Your task to perform on an android device: Show the shopping cart on newegg. Search for "logitech g933" on newegg, select the first entry, add it to the cart, then select checkout. Image 0: 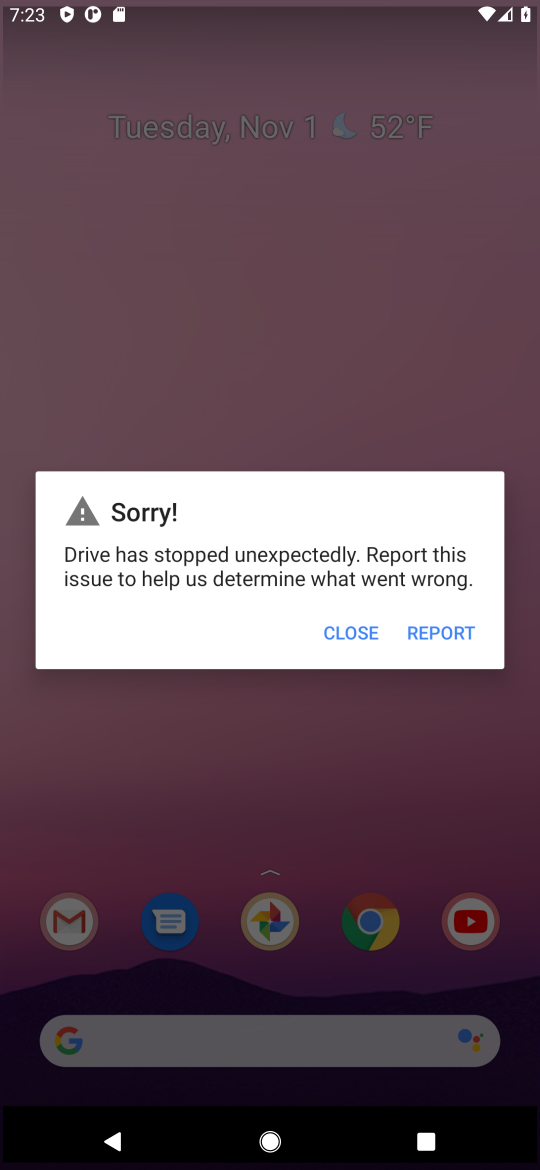
Step 0: click (386, 938)
Your task to perform on an android device: Show the shopping cart on newegg. Search for "logitech g933" on newegg, select the first entry, add it to the cart, then select checkout. Image 1: 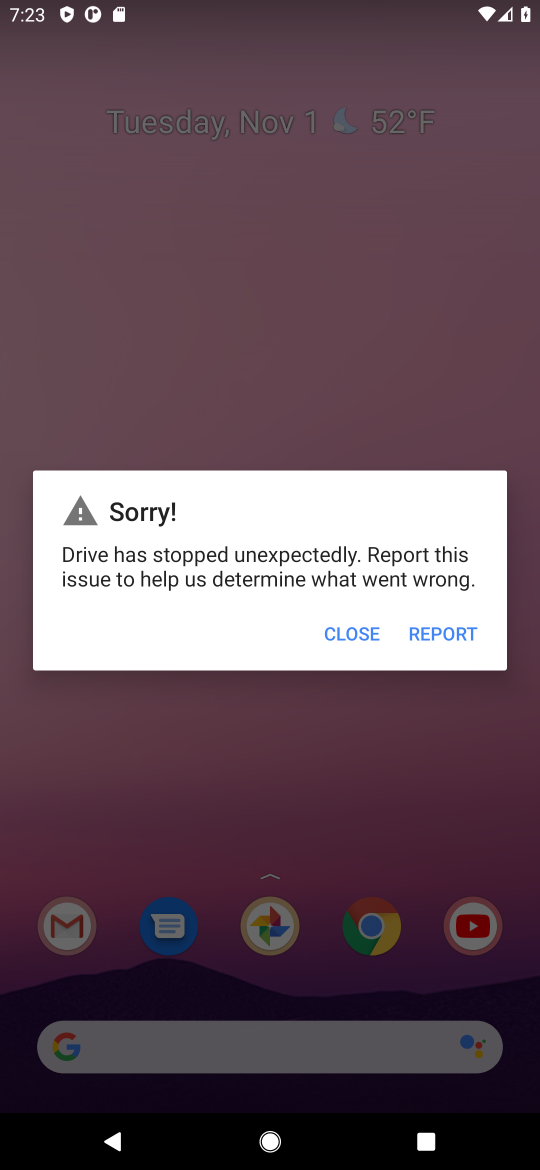
Step 1: click (354, 635)
Your task to perform on an android device: Show the shopping cart on newegg. Search for "logitech g933" on newegg, select the first entry, add it to the cart, then select checkout. Image 2: 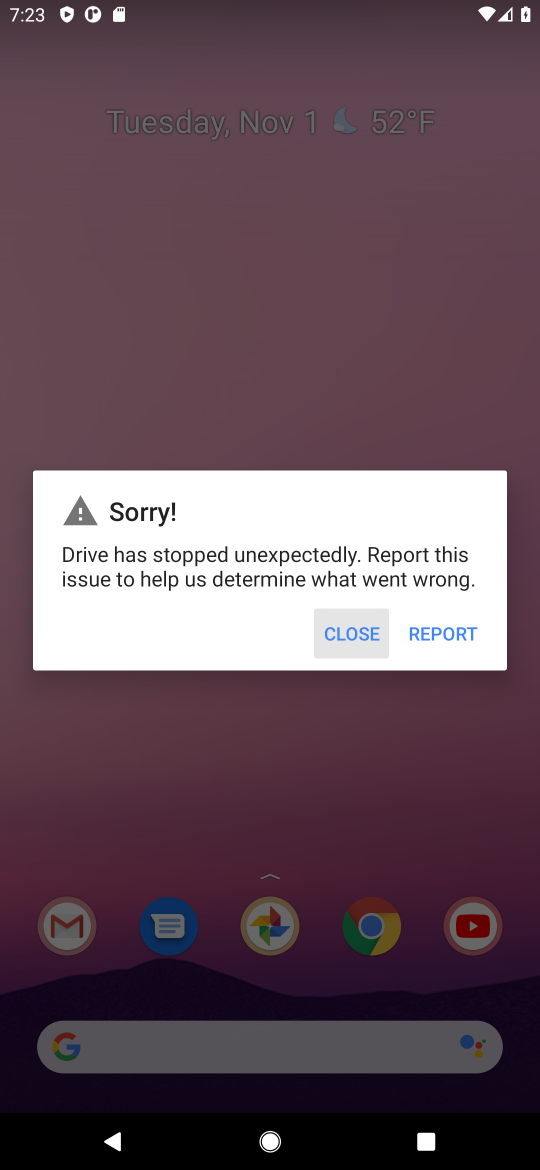
Step 2: click (356, 936)
Your task to perform on an android device: Show the shopping cart on newegg. Search for "logitech g933" on newegg, select the first entry, add it to the cart, then select checkout. Image 3: 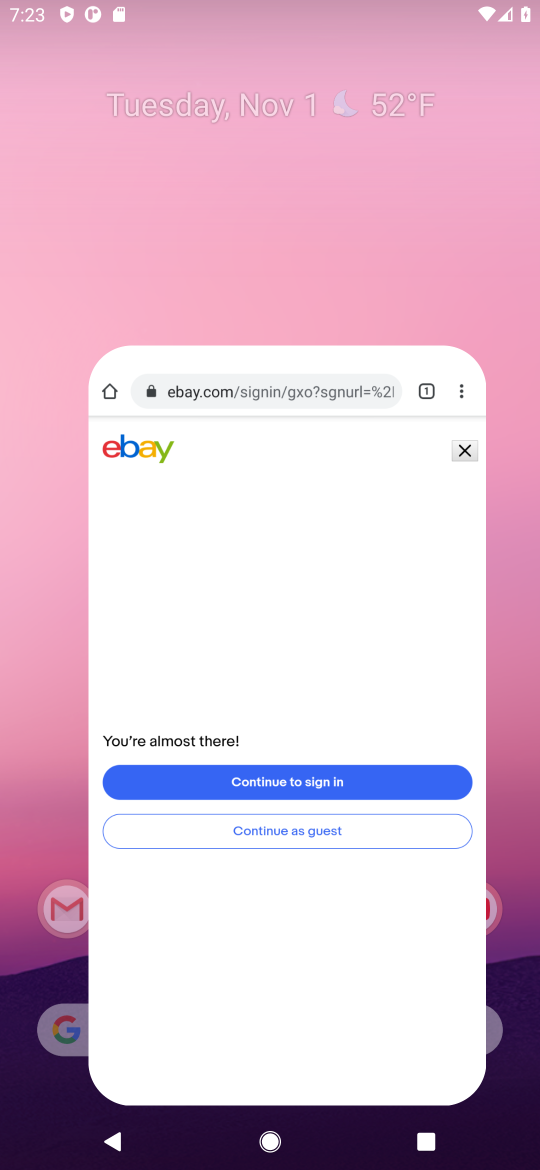
Step 3: click (361, 930)
Your task to perform on an android device: Show the shopping cart on newegg. Search for "logitech g933" on newegg, select the first entry, add it to the cart, then select checkout. Image 4: 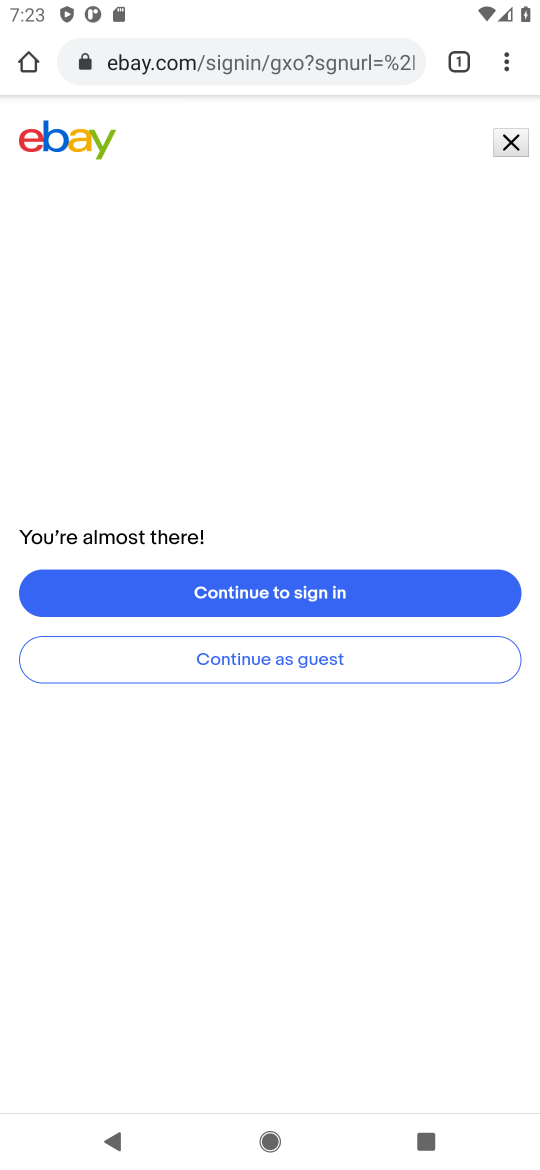
Step 4: click (188, 57)
Your task to perform on an android device: Show the shopping cart on newegg. Search for "logitech g933" on newegg, select the first entry, add it to the cart, then select checkout. Image 5: 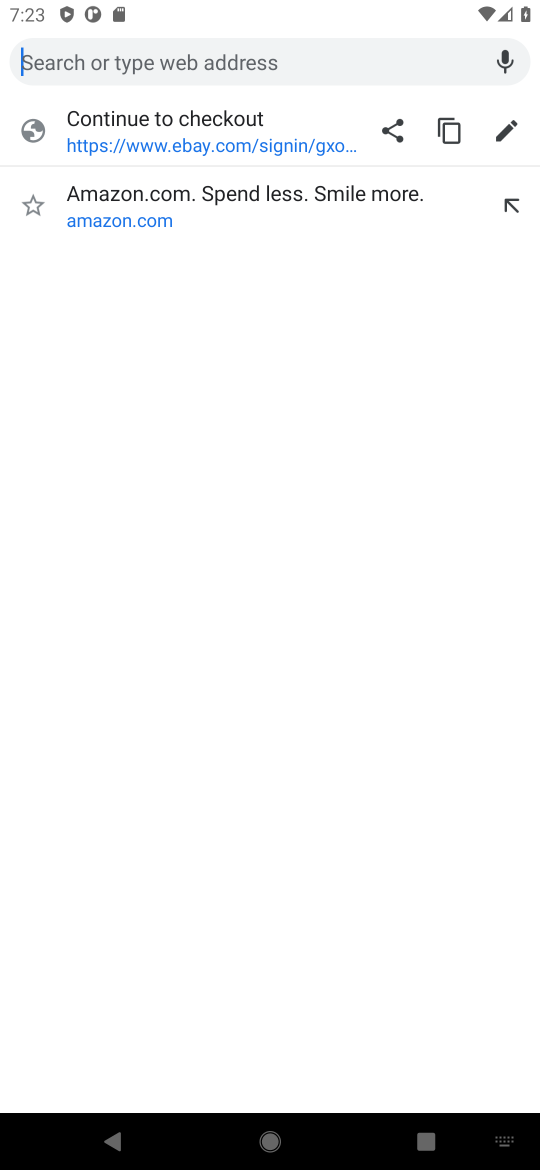
Step 5: type "newegg"
Your task to perform on an android device: Show the shopping cart on newegg. Search for "logitech g933" on newegg, select the first entry, add it to the cart, then select checkout. Image 6: 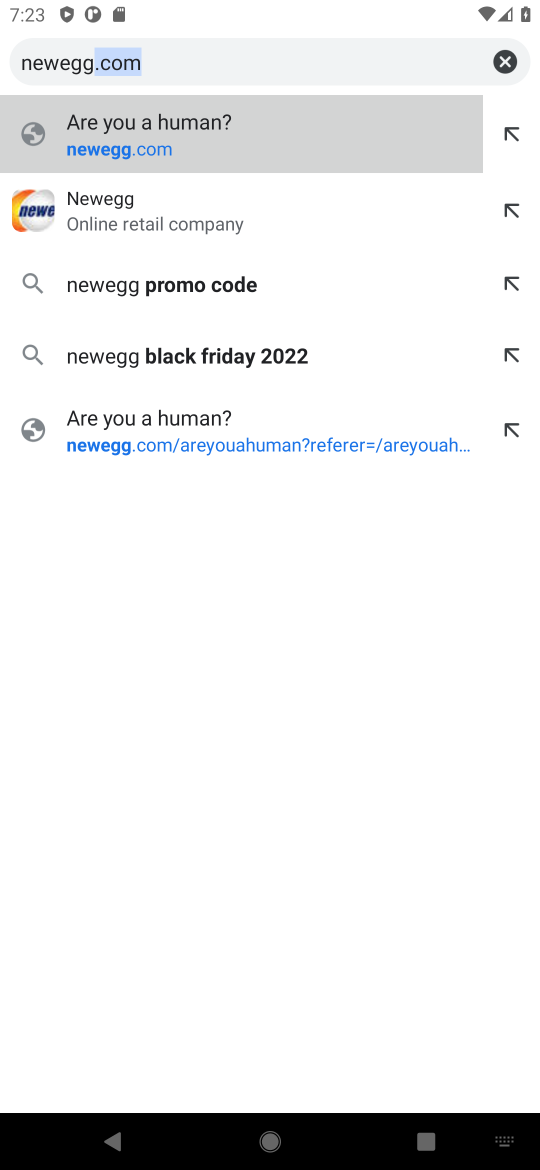
Step 6: type ""
Your task to perform on an android device: Show the shopping cart on newegg. Search for "logitech g933" on newegg, select the first entry, add it to the cart, then select checkout. Image 7: 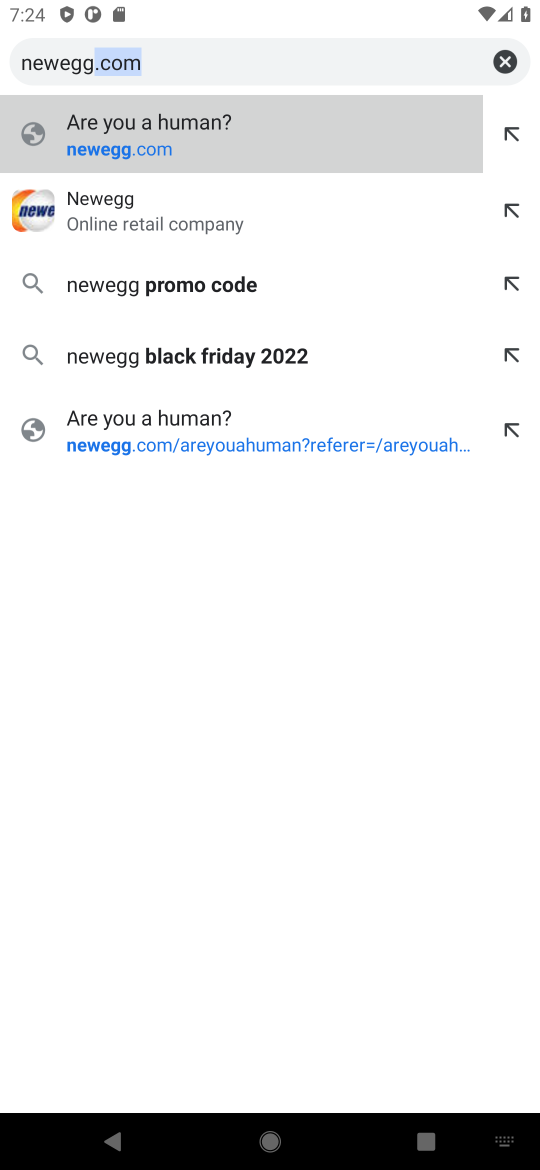
Step 7: click (103, 197)
Your task to perform on an android device: Show the shopping cart on newegg. Search for "logitech g933" on newegg, select the first entry, add it to the cart, then select checkout. Image 8: 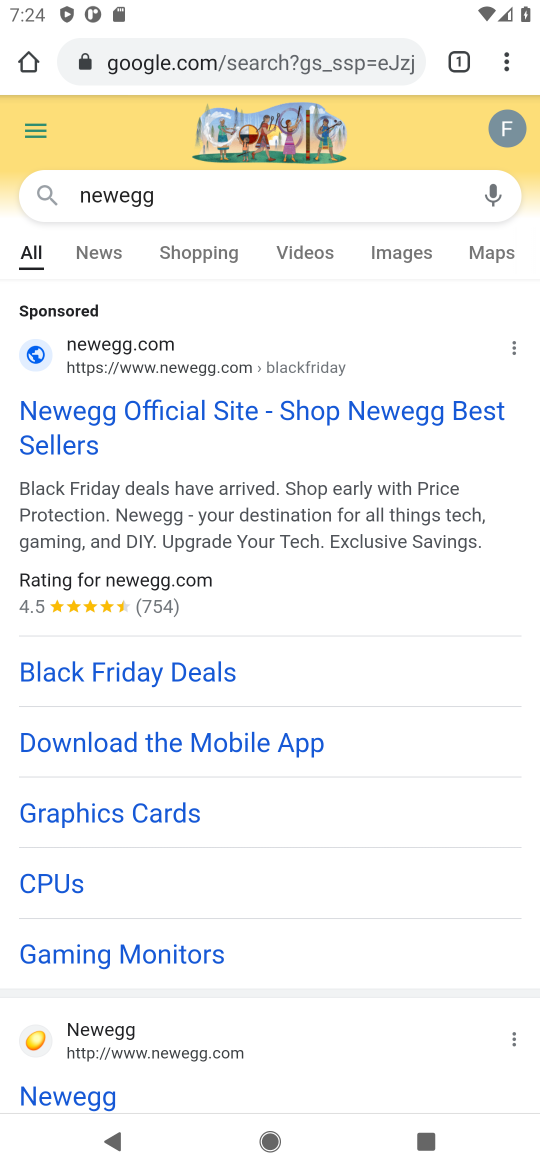
Step 8: click (93, 1033)
Your task to perform on an android device: Show the shopping cart on newegg. Search for "logitech g933" on newegg, select the first entry, add it to the cart, then select checkout. Image 9: 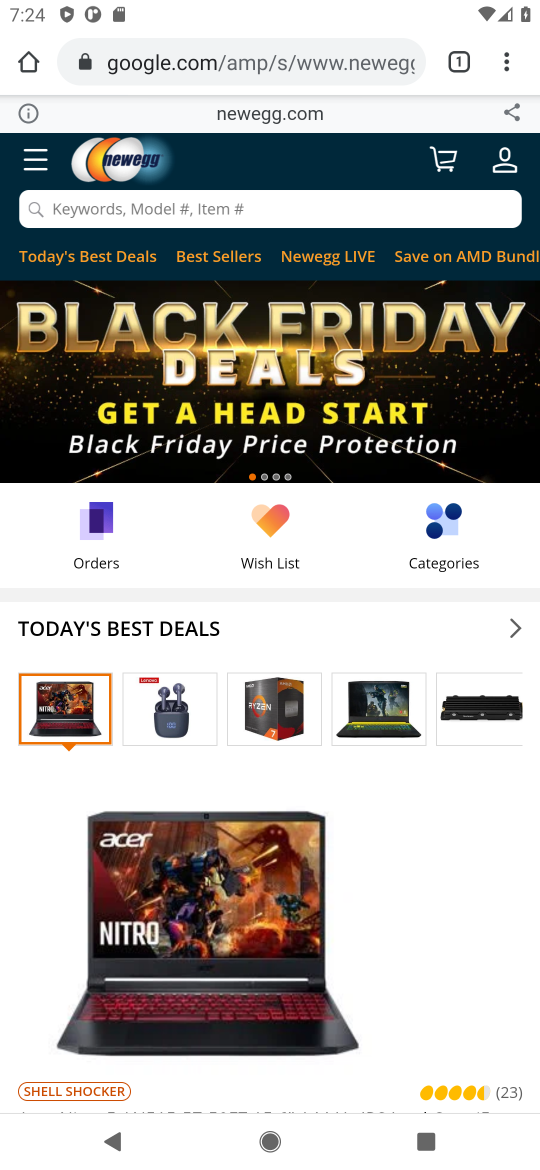
Step 9: click (240, 202)
Your task to perform on an android device: Show the shopping cart on newegg. Search for "logitech g933" on newegg, select the first entry, add it to the cart, then select checkout. Image 10: 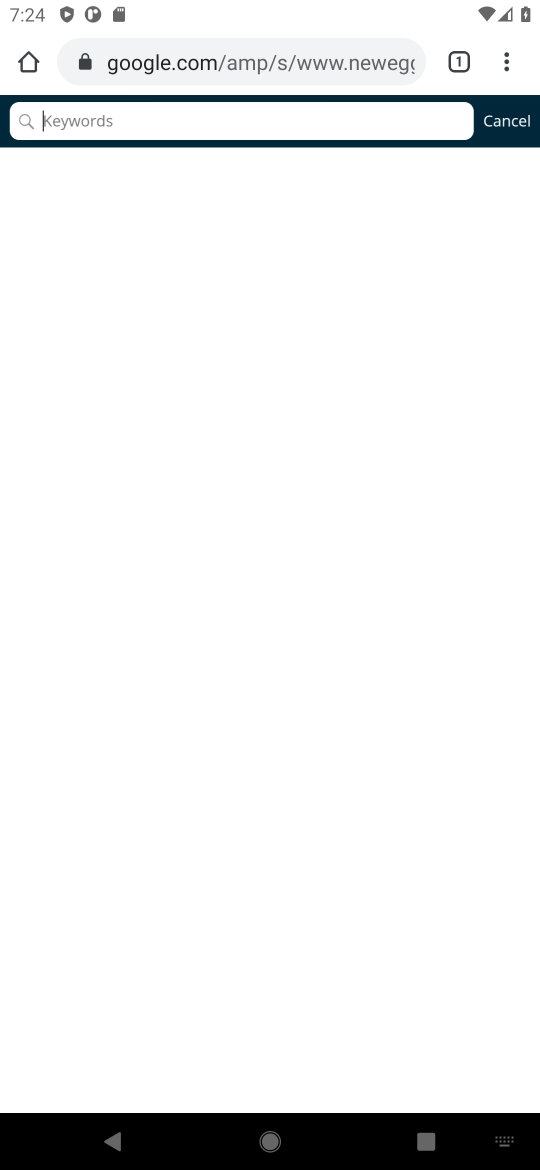
Step 10: type "logitech g 33"
Your task to perform on an android device: Show the shopping cart on newegg. Search for "logitech g933" on newegg, select the first entry, add it to the cart, then select checkout. Image 11: 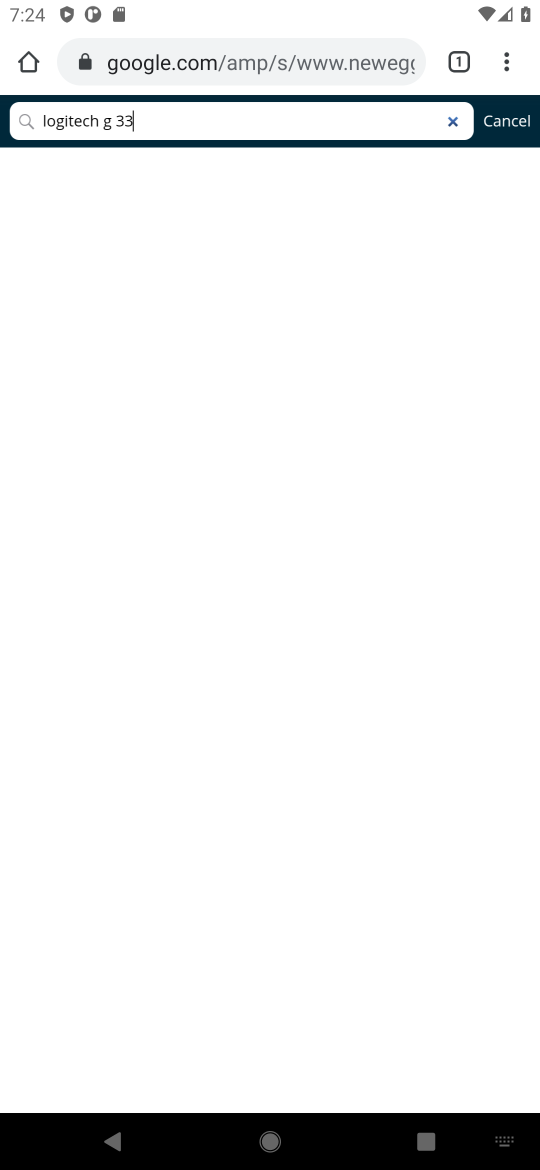
Step 11: type ""
Your task to perform on an android device: Show the shopping cart on newegg. Search for "logitech g933" on newegg, select the first entry, add it to the cart, then select checkout. Image 12: 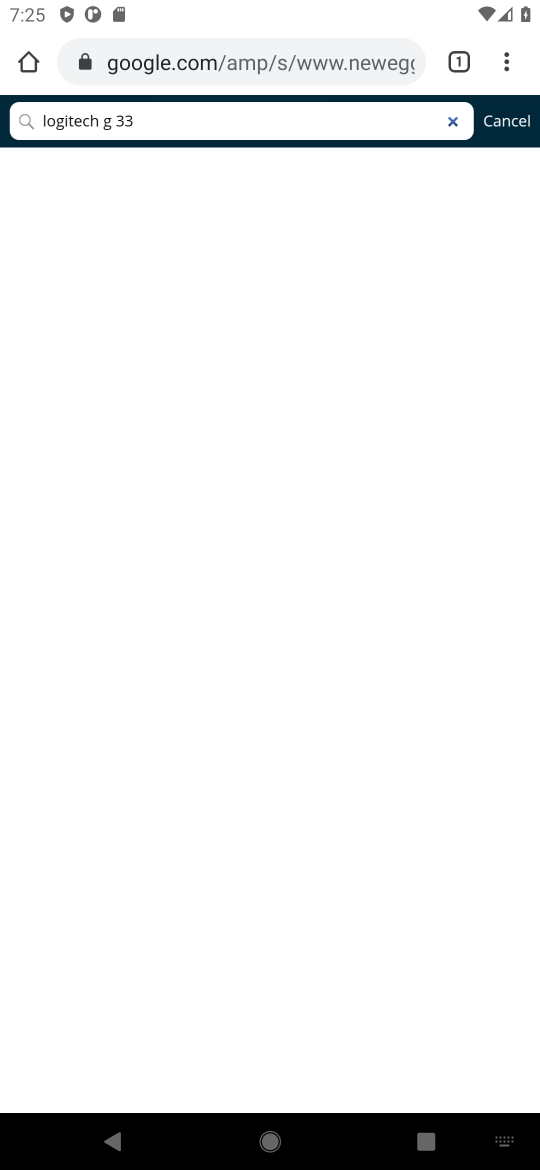
Step 12: click (454, 124)
Your task to perform on an android device: Show the shopping cart on newegg. Search for "logitech g933" on newegg, select the first entry, add it to the cart, then select checkout. Image 13: 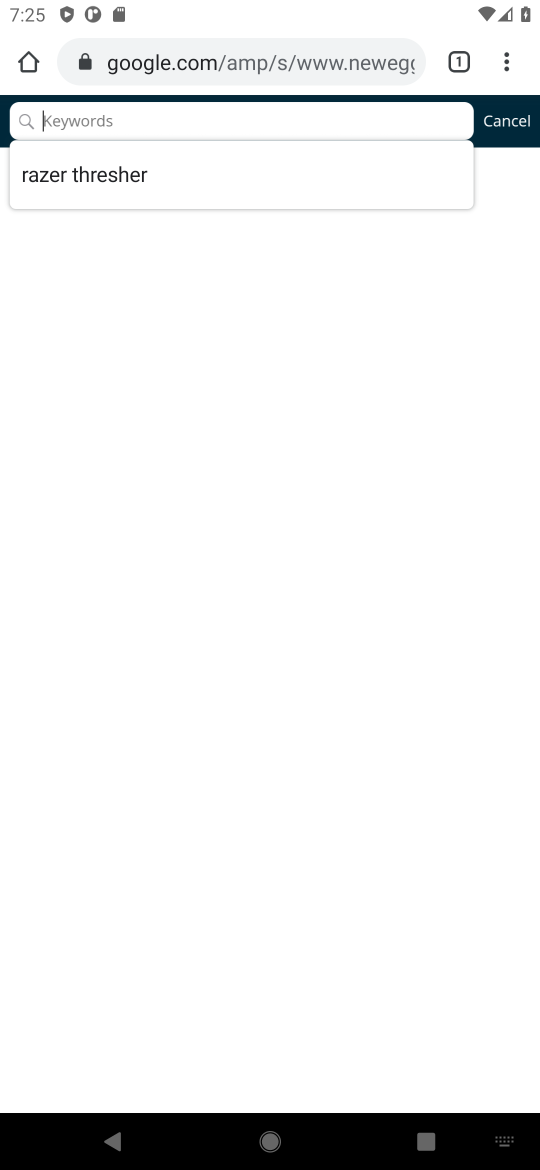
Step 13: press back button
Your task to perform on an android device: Show the shopping cart on newegg. Search for "logitech g933" on newegg, select the first entry, add it to the cart, then select checkout. Image 14: 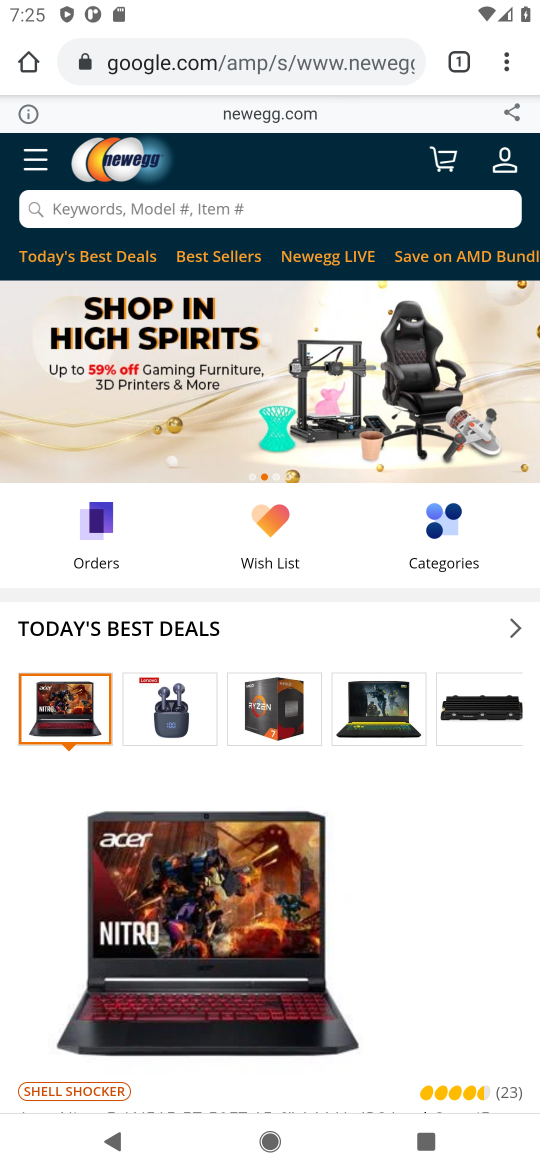
Step 14: click (104, 522)
Your task to perform on an android device: Show the shopping cart on newegg. Search for "logitech g933" on newegg, select the first entry, add it to the cart, then select checkout. Image 15: 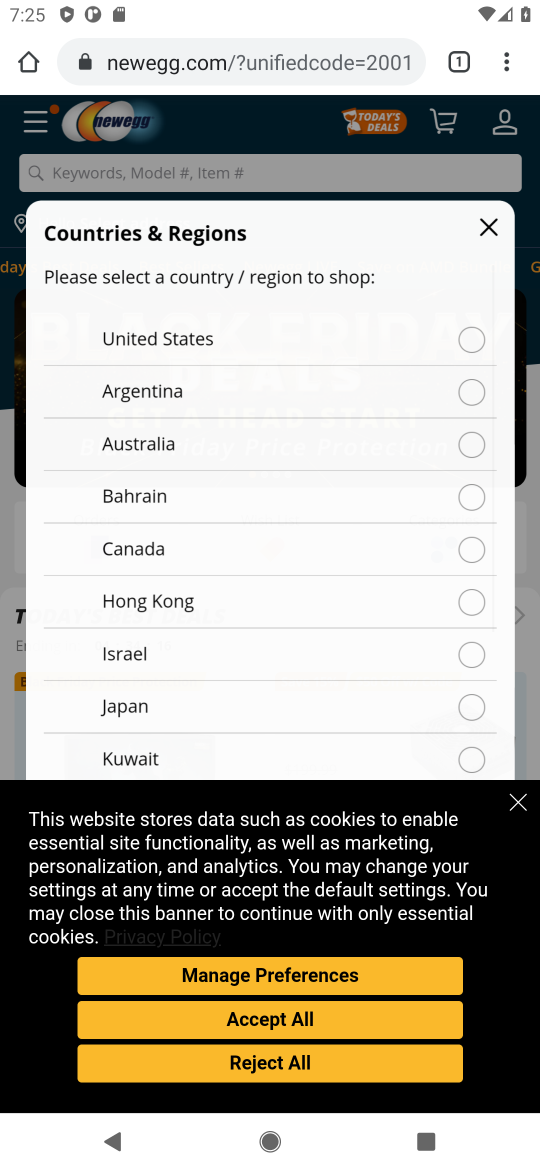
Step 15: click (121, 163)
Your task to perform on an android device: Show the shopping cart on newegg. Search for "logitech g933" on newegg, select the first entry, add it to the cart, then select checkout. Image 16: 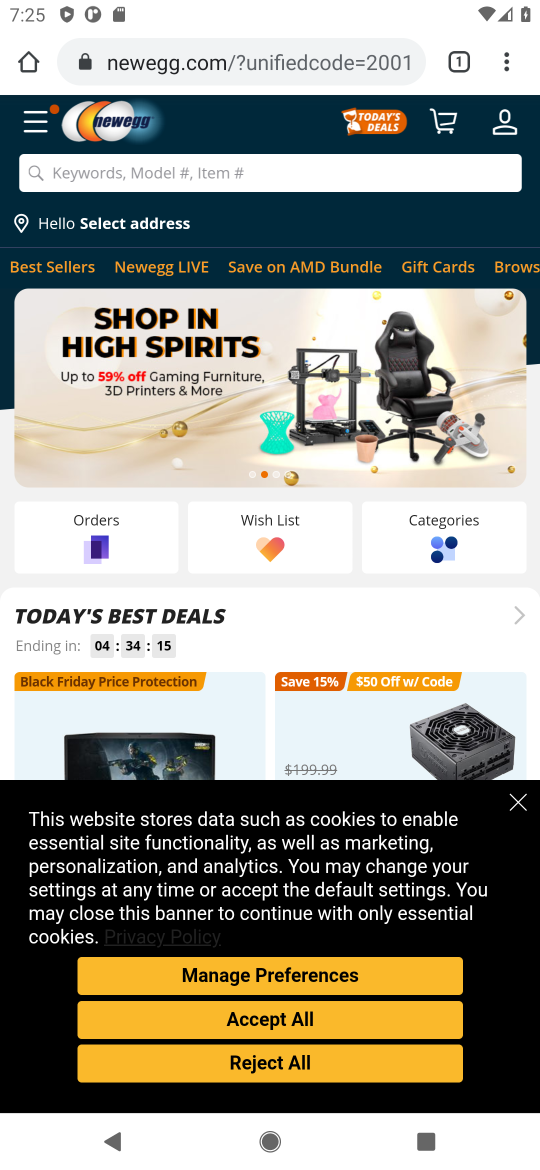
Step 16: click (491, 224)
Your task to perform on an android device: Show the shopping cart on newegg. Search for "logitech g933" on newegg, select the first entry, add it to the cart, then select checkout. Image 17: 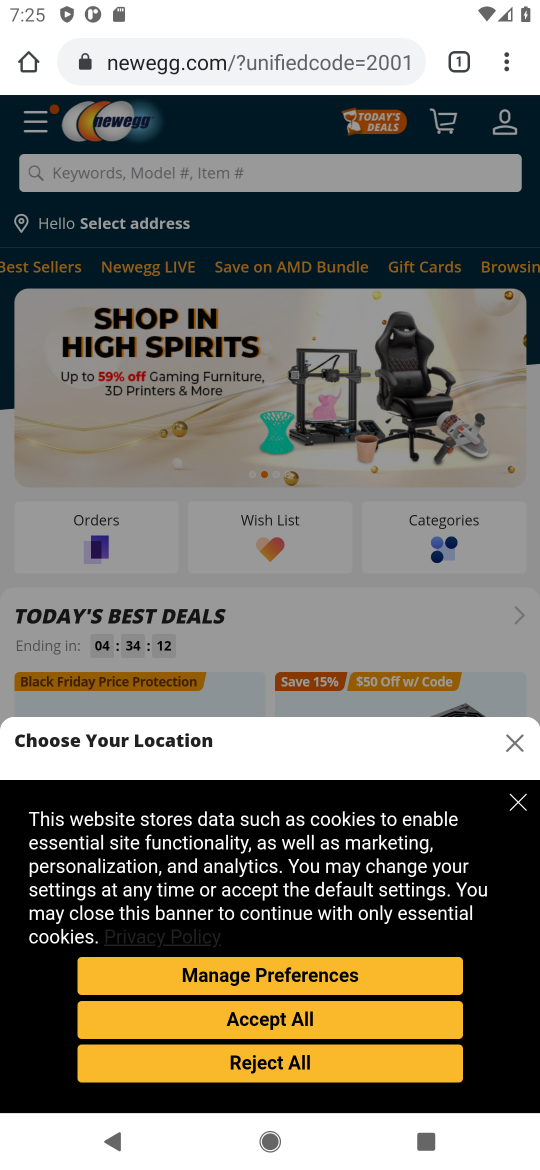
Step 17: click (246, 170)
Your task to perform on an android device: Show the shopping cart on newegg. Search for "logitech g933" on newegg, select the first entry, add it to the cart, then select checkout. Image 18: 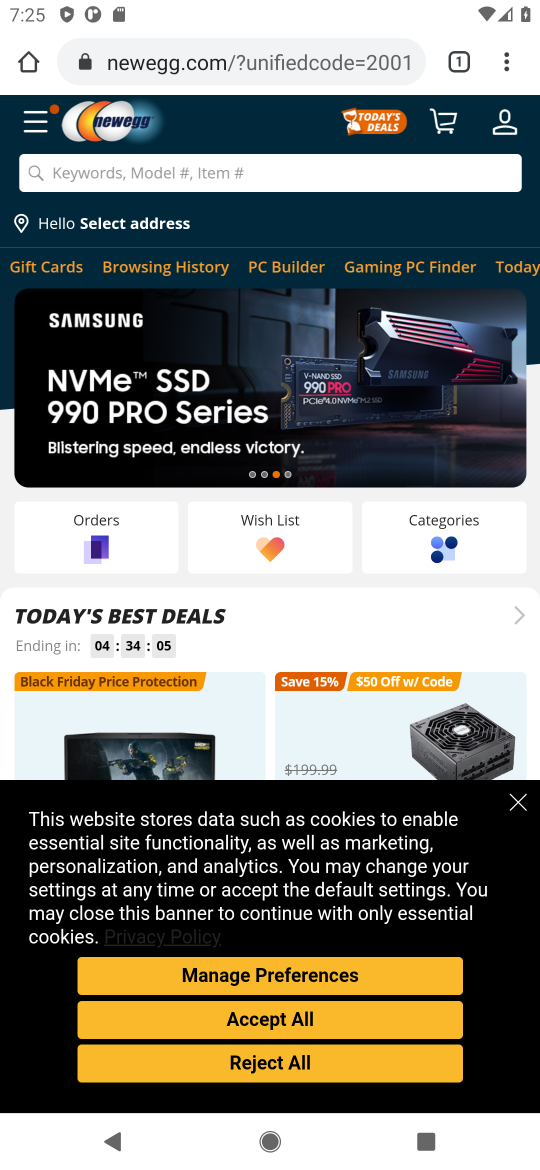
Step 18: click (303, 1070)
Your task to perform on an android device: Show the shopping cart on newegg. Search for "logitech g933" on newegg, select the first entry, add it to the cart, then select checkout. Image 19: 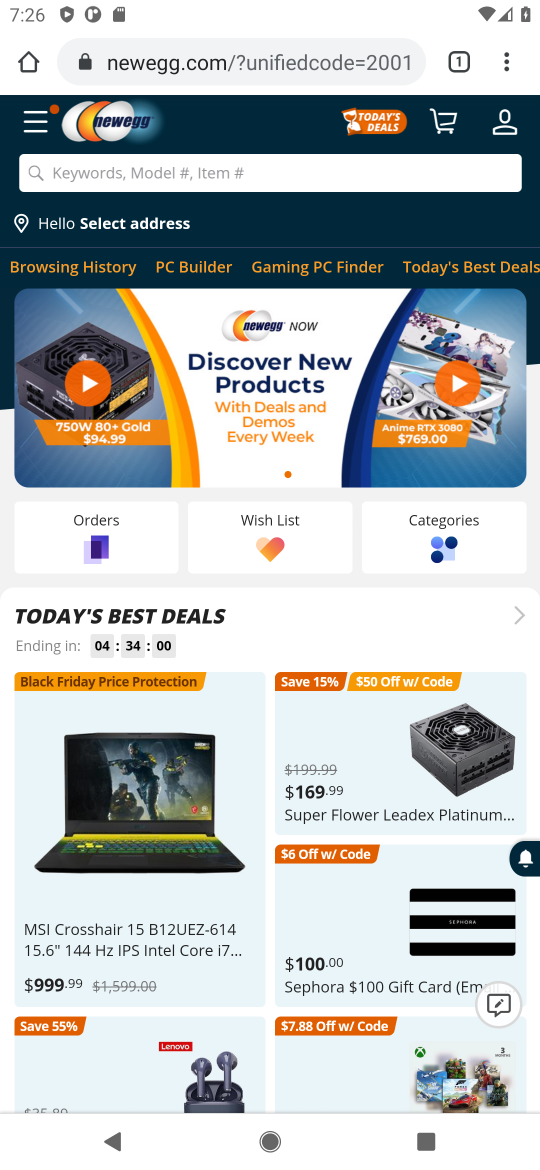
Step 19: click (158, 163)
Your task to perform on an android device: Show the shopping cart on newegg. Search for "logitech g933" on newegg, select the first entry, add it to the cart, then select checkout. Image 20: 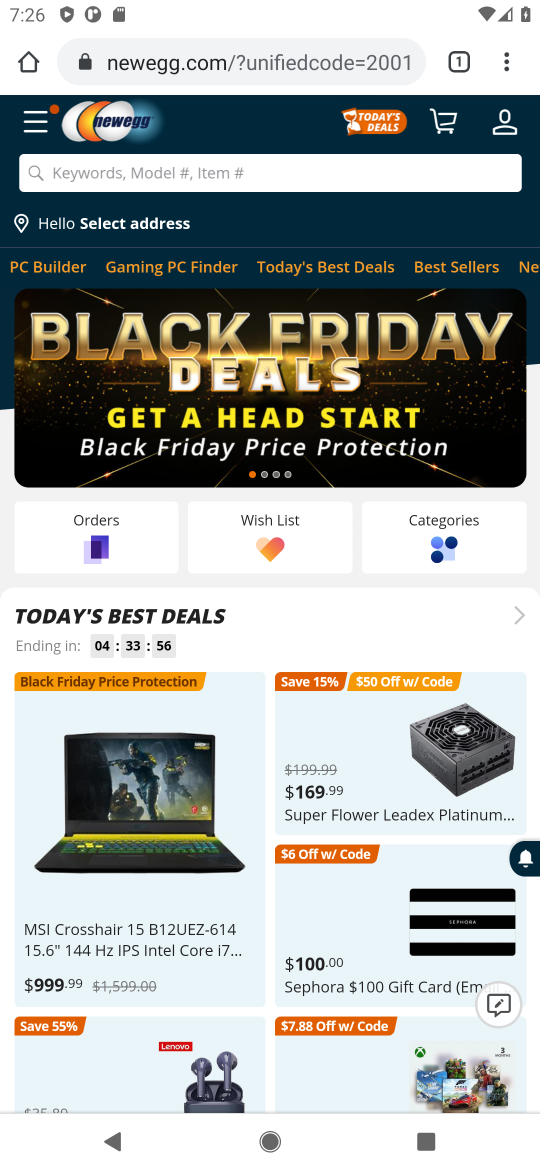
Step 20: click (220, 175)
Your task to perform on an android device: Show the shopping cart on newegg. Search for "logitech g933" on newegg, select the first entry, add it to the cart, then select checkout. Image 21: 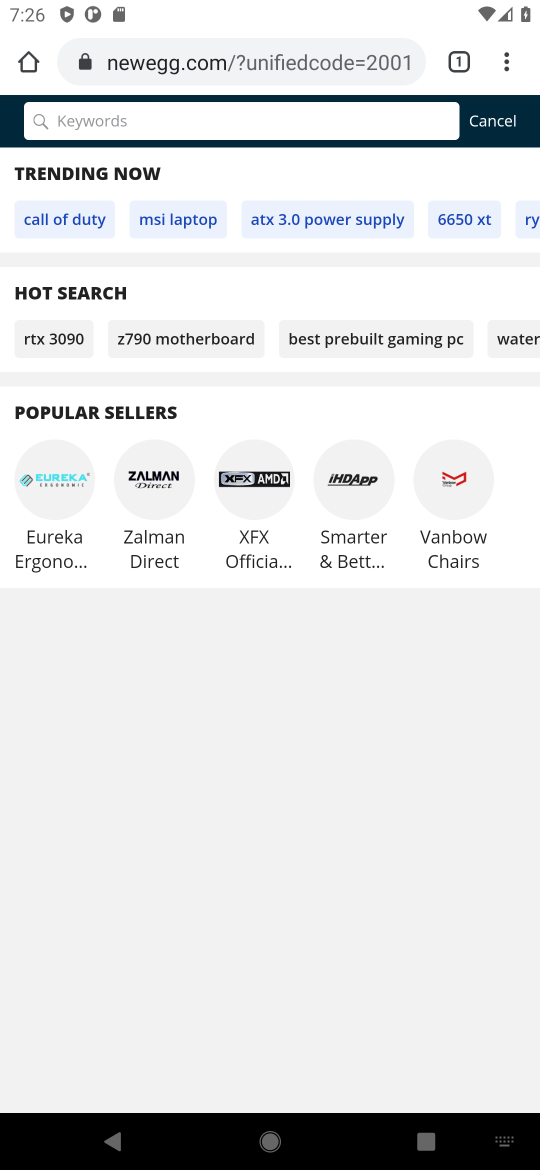
Step 21: type "logitech g 933"
Your task to perform on an android device: Show the shopping cart on newegg. Search for "logitech g933" on newegg, select the first entry, add it to the cart, then select checkout. Image 22: 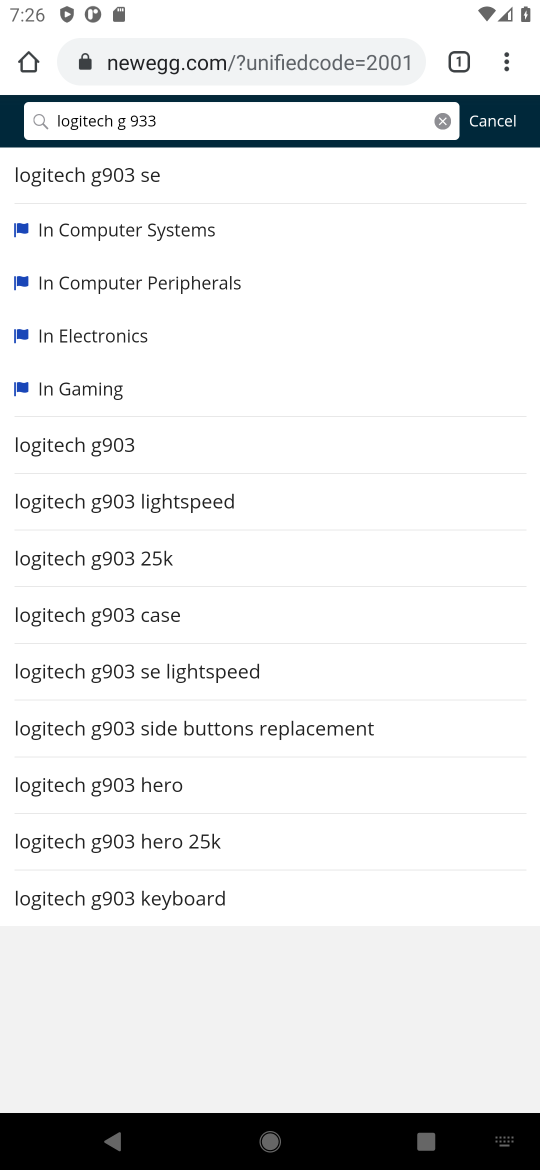
Step 22: click (141, 174)
Your task to perform on an android device: Show the shopping cart on newegg. Search for "logitech g933" on newegg, select the first entry, add it to the cart, then select checkout. Image 23: 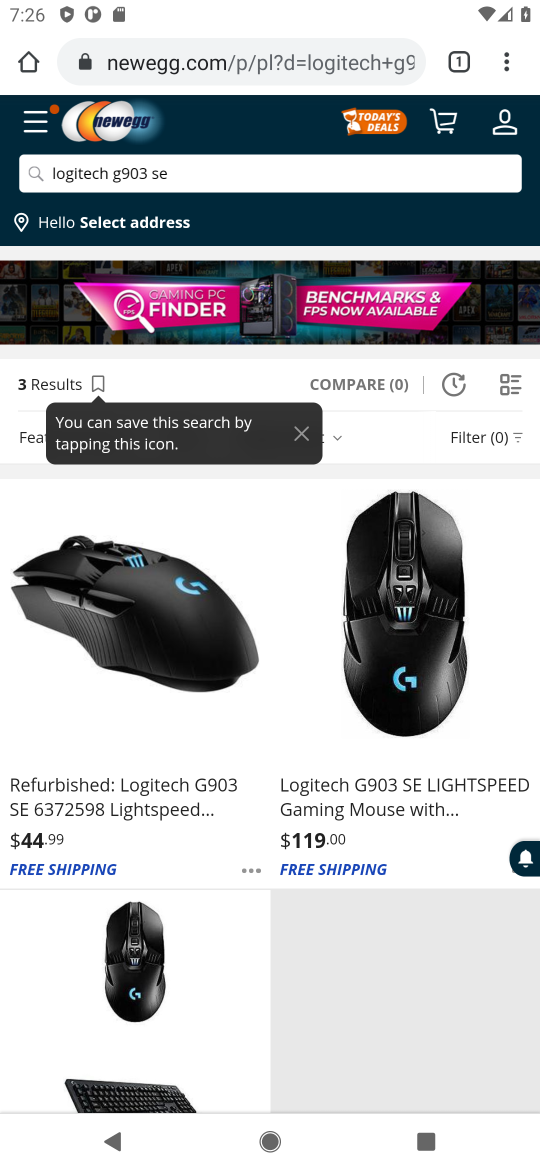
Step 23: drag from (341, 1028) to (335, 505)
Your task to perform on an android device: Show the shopping cart on newegg. Search for "logitech g933" on newegg, select the first entry, add it to the cart, then select checkout. Image 24: 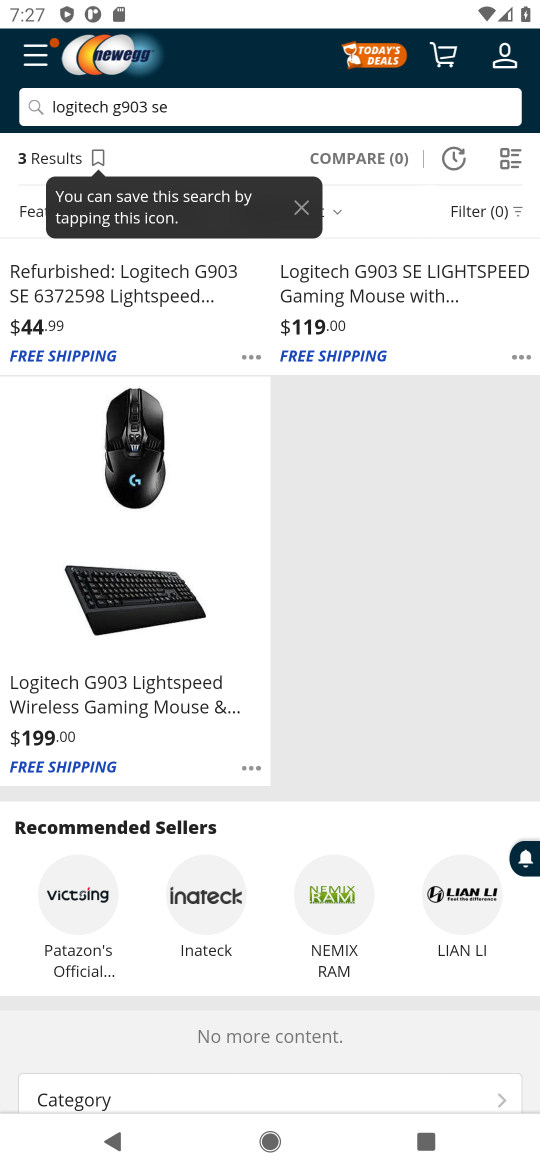
Step 24: click (143, 479)
Your task to perform on an android device: Show the shopping cart on newegg. Search for "logitech g933" on newegg, select the first entry, add it to the cart, then select checkout. Image 25: 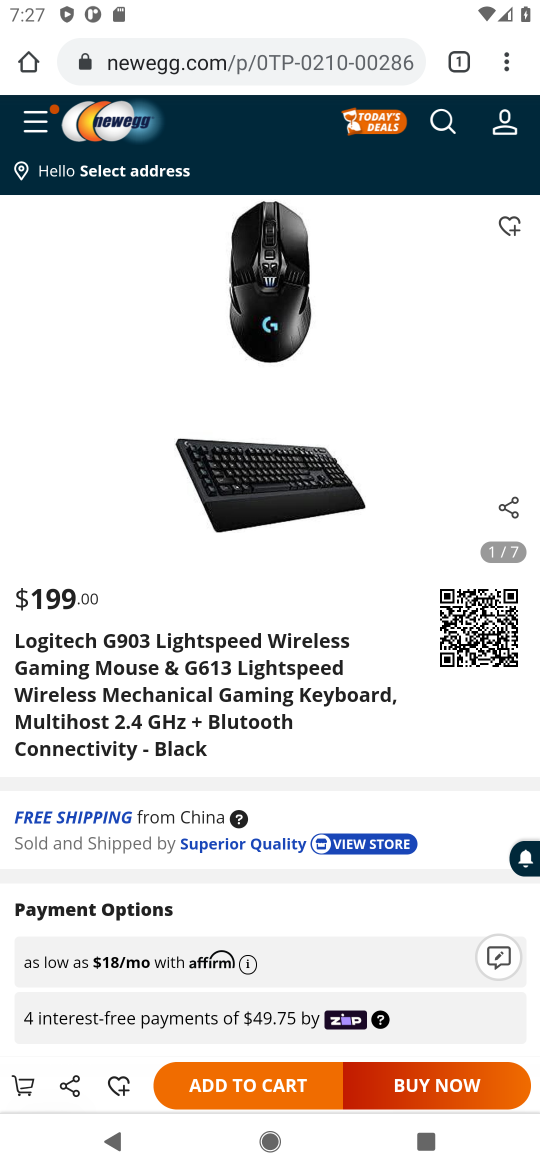
Step 25: click (253, 1049)
Your task to perform on an android device: Show the shopping cart on newegg. Search for "logitech g933" on newegg, select the first entry, add it to the cart, then select checkout. Image 26: 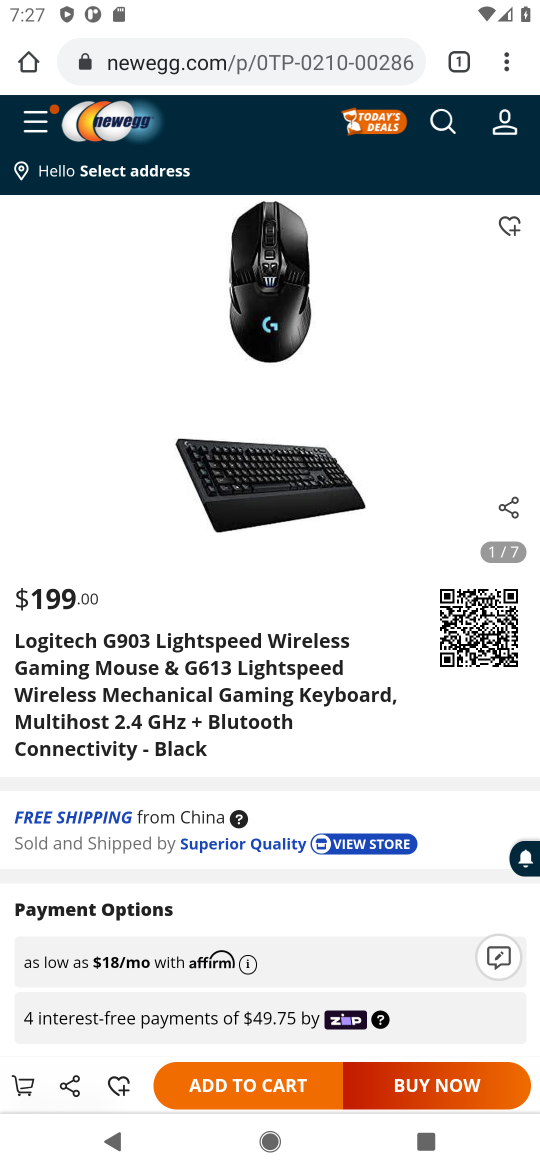
Step 26: click (244, 1087)
Your task to perform on an android device: Show the shopping cart on newegg. Search for "logitech g933" on newegg, select the first entry, add it to the cart, then select checkout. Image 27: 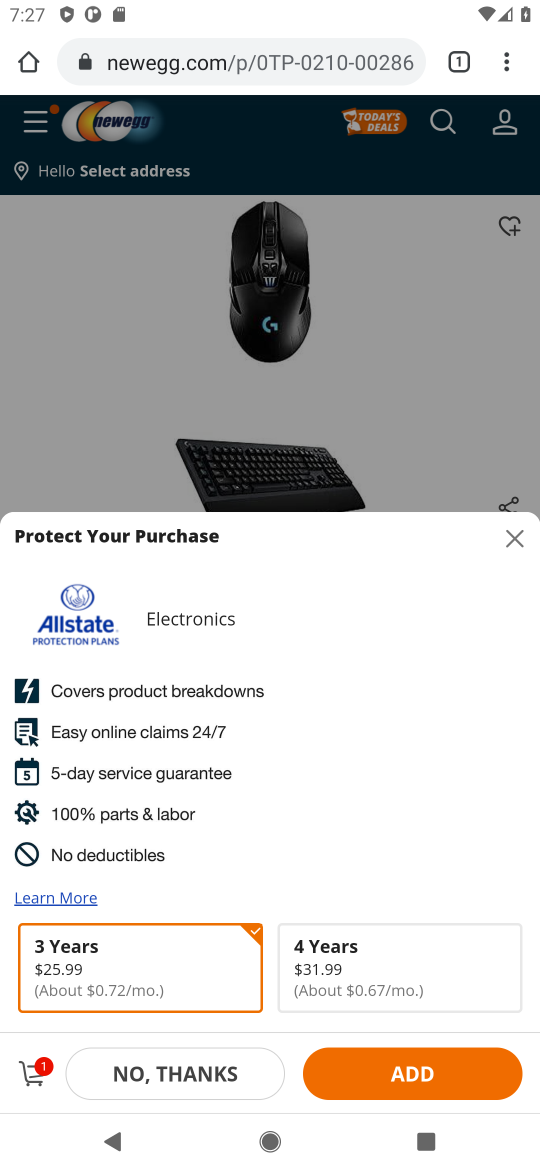
Step 27: click (176, 1084)
Your task to perform on an android device: Show the shopping cart on newegg. Search for "logitech g933" on newegg, select the first entry, add it to the cart, then select checkout. Image 28: 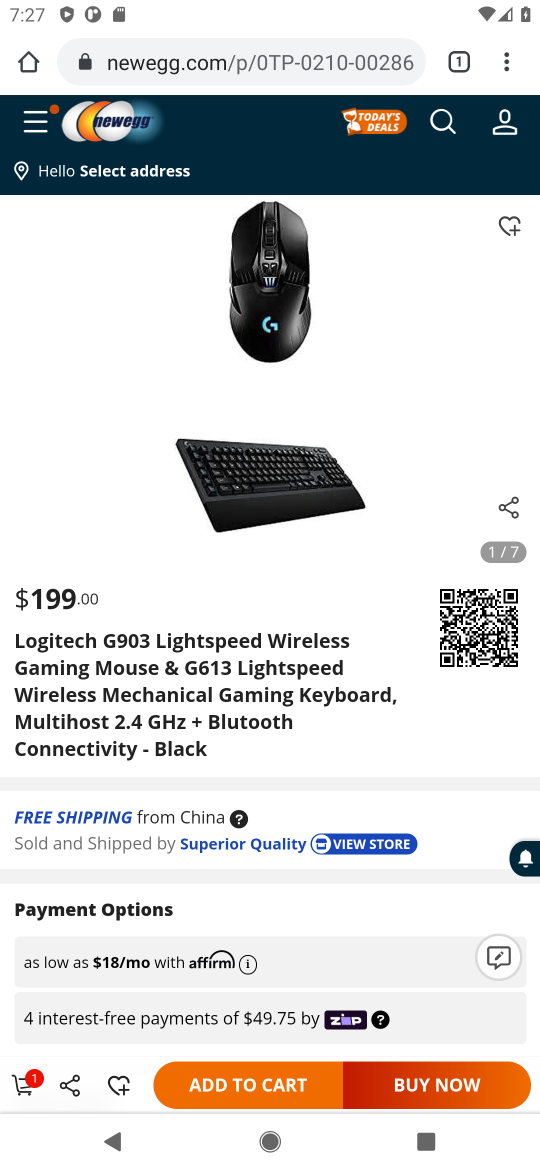
Step 28: click (18, 1074)
Your task to perform on an android device: Show the shopping cart on newegg. Search for "logitech g933" on newegg, select the first entry, add it to the cart, then select checkout. Image 29: 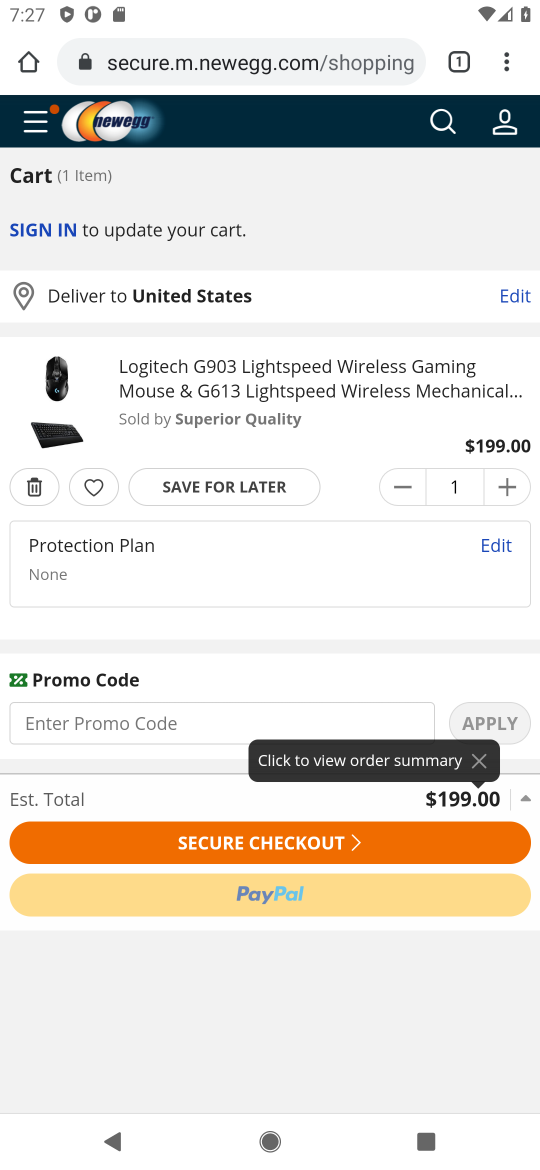
Step 29: click (262, 839)
Your task to perform on an android device: Show the shopping cart on newegg. Search for "logitech g933" on newegg, select the first entry, add it to the cart, then select checkout. Image 30: 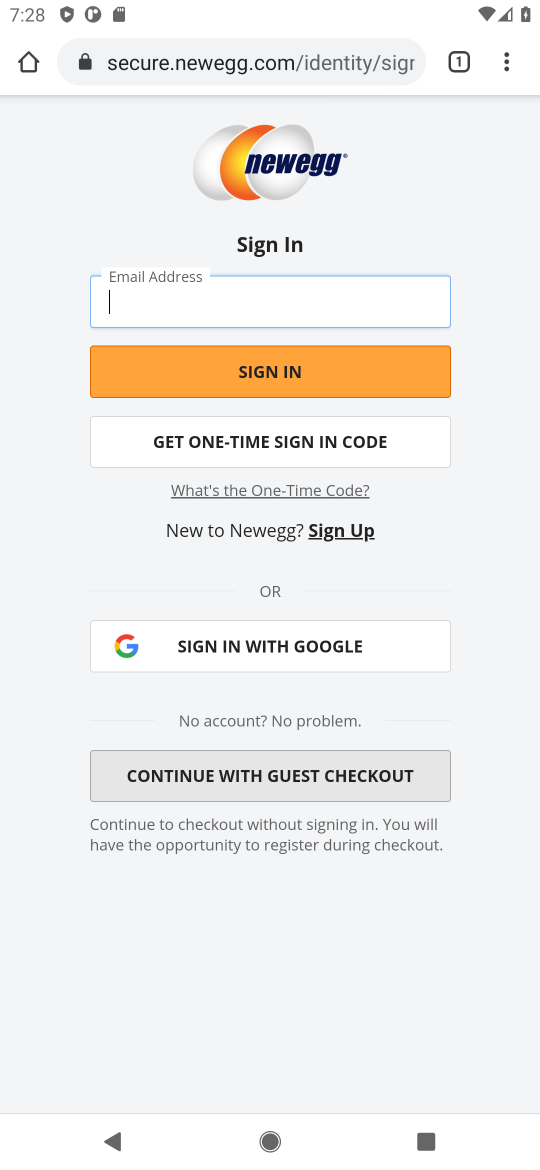
Step 30: task complete